Your task to perform on an android device: toggle pop-ups in chrome Image 0: 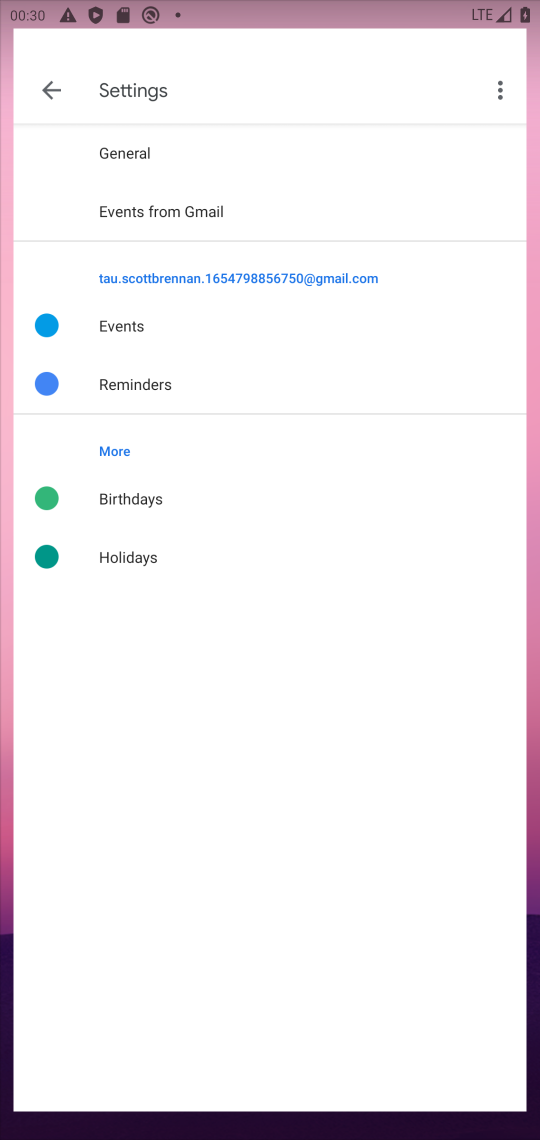
Step 0: press home button
Your task to perform on an android device: toggle pop-ups in chrome Image 1: 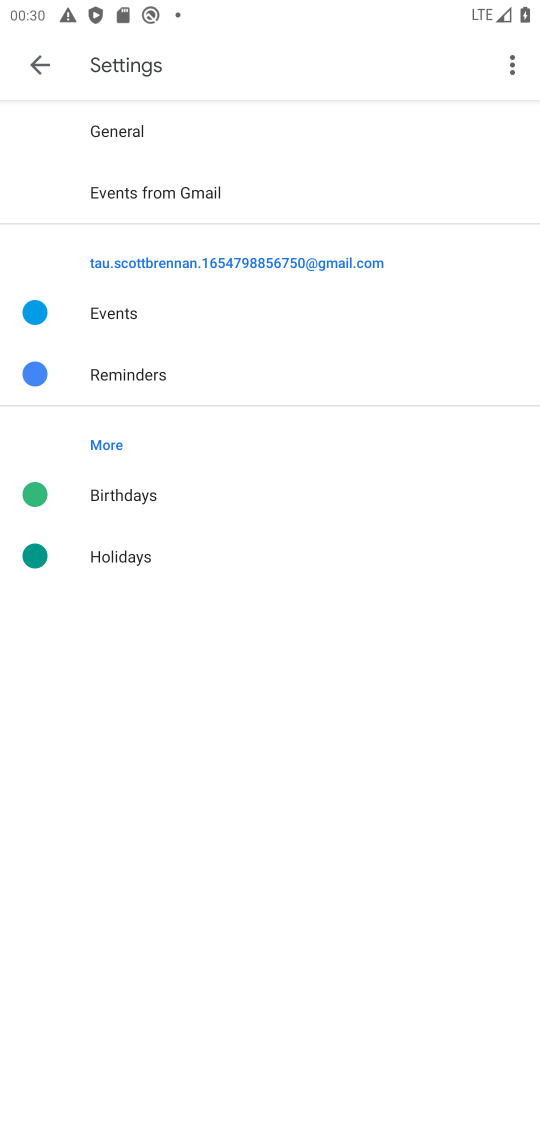
Step 1: drag from (190, 1014) to (325, 6)
Your task to perform on an android device: toggle pop-ups in chrome Image 2: 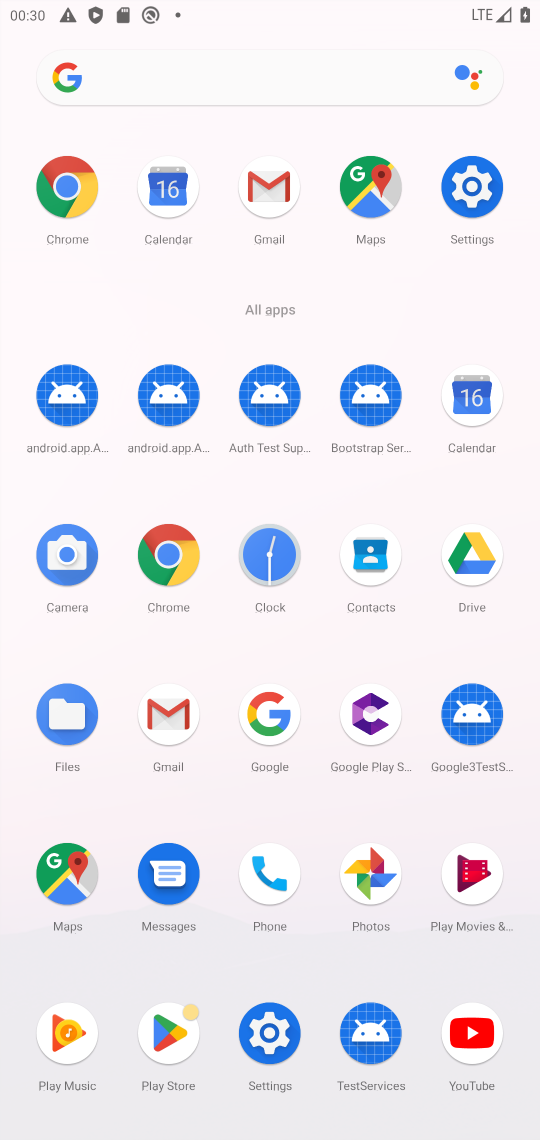
Step 2: click (455, 190)
Your task to perform on an android device: toggle pop-ups in chrome Image 3: 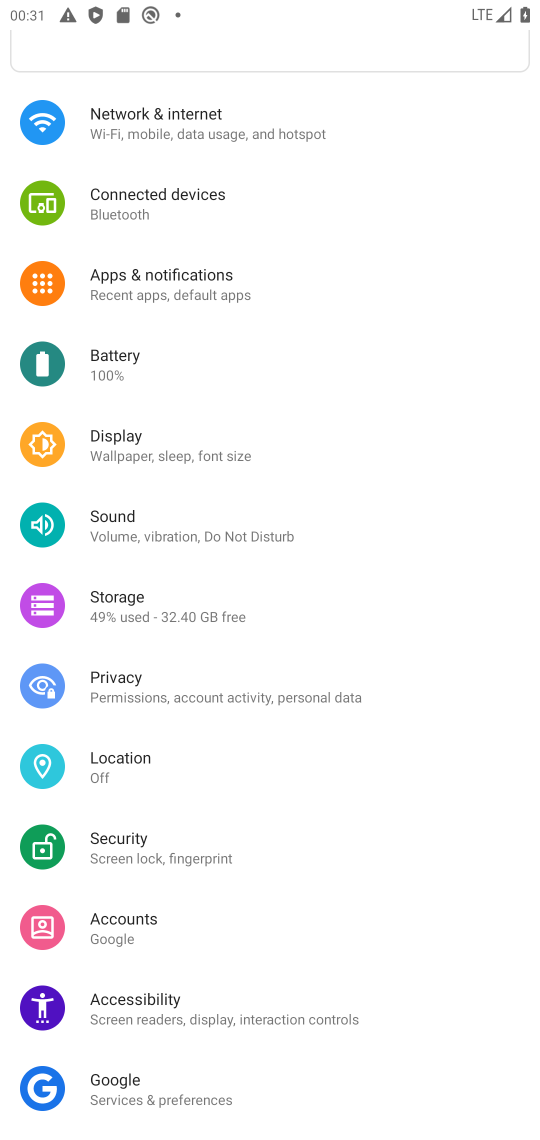
Step 3: drag from (158, 887) to (228, 470)
Your task to perform on an android device: toggle pop-ups in chrome Image 4: 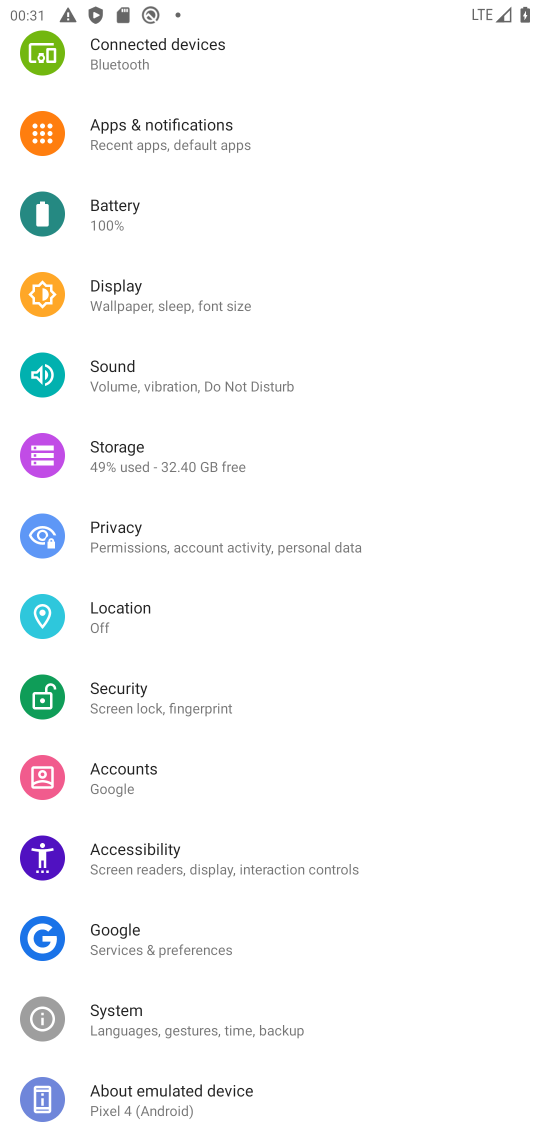
Step 4: press home button
Your task to perform on an android device: toggle pop-ups in chrome Image 5: 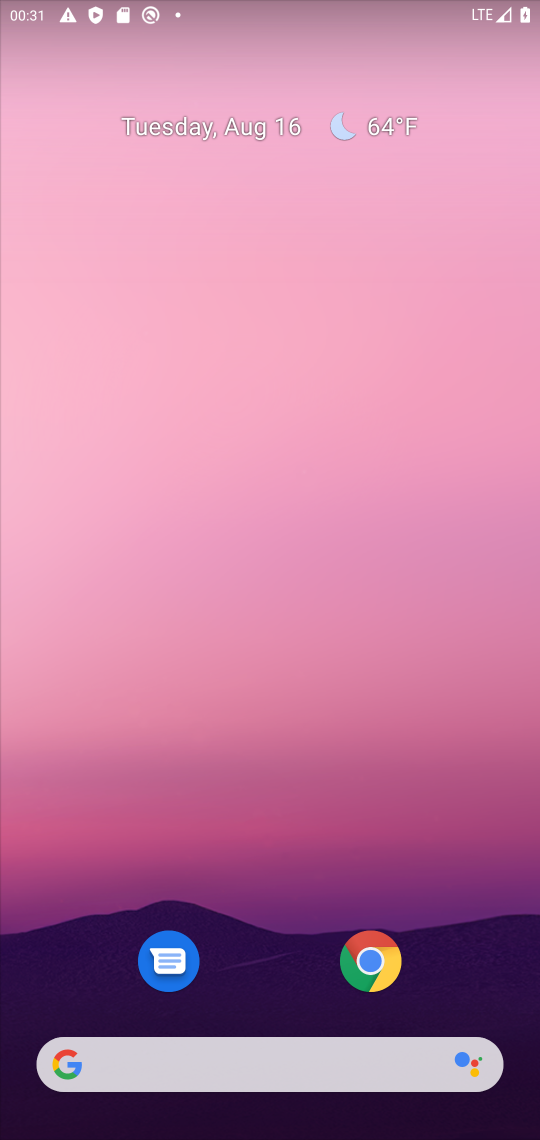
Step 5: click (383, 959)
Your task to perform on an android device: toggle pop-ups in chrome Image 6: 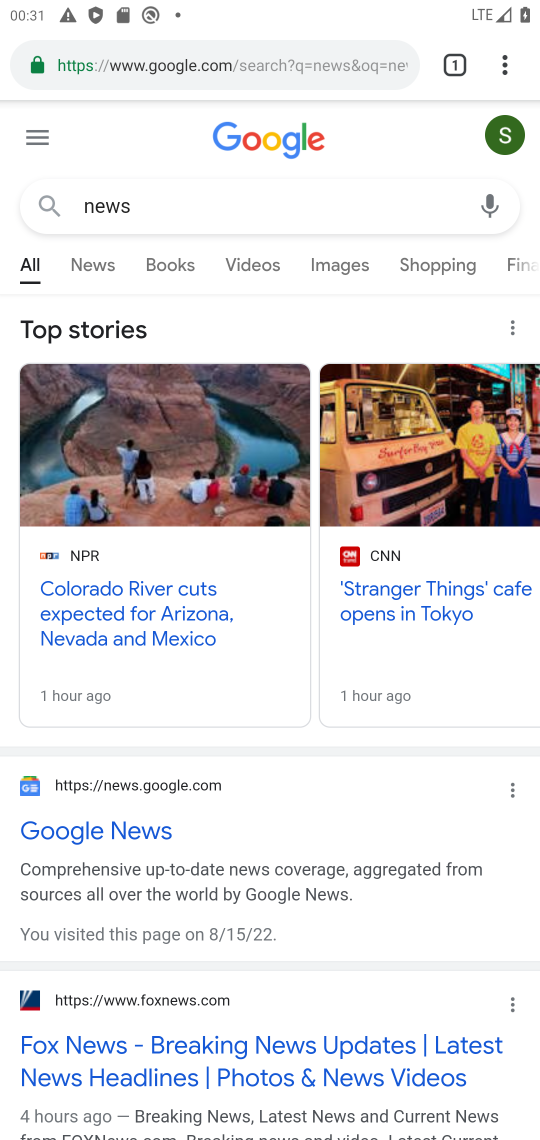
Step 6: drag from (500, 60) to (288, 801)
Your task to perform on an android device: toggle pop-ups in chrome Image 7: 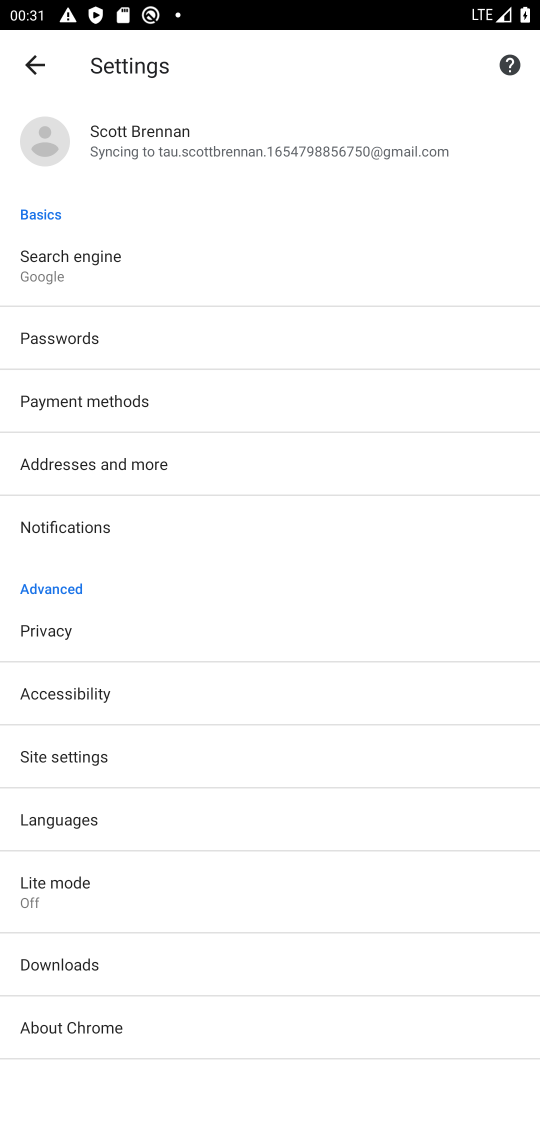
Step 7: click (93, 760)
Your task to perform on an android device: toggle pop-ups in chrome Image 8: 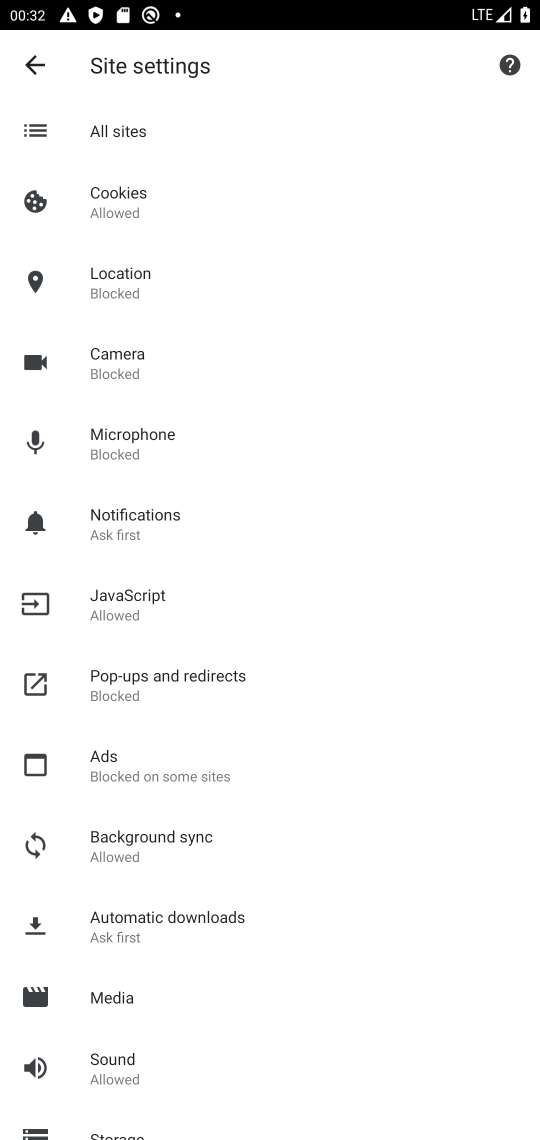
Step 8: click (212, 679)
Your task to perform on an android device: toggle pop-ups in chrome Image 9: 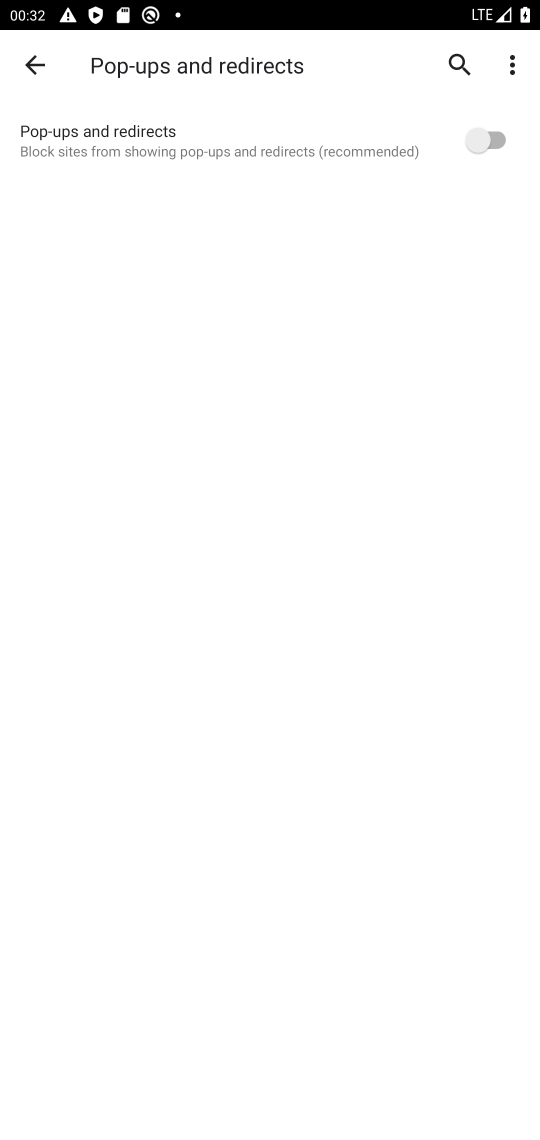
Step 9: click (458, 127)
Your task to perform on an android device: toggle pop-ups in chrome Image 10: 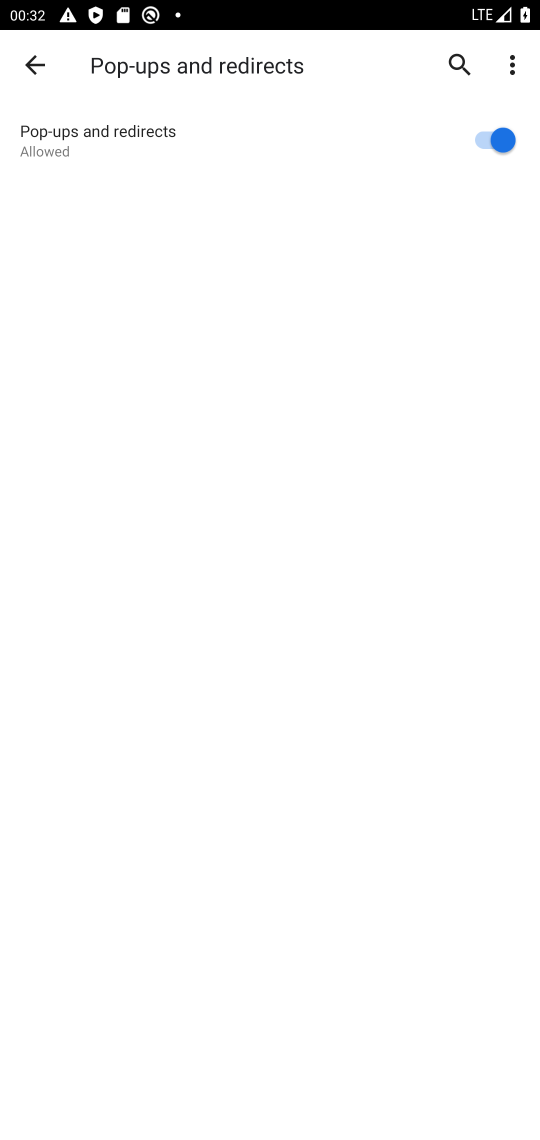
Step 10: task complete